Your task to perform on an android device: Search for seafood restaurants on Google Maps Image 0: 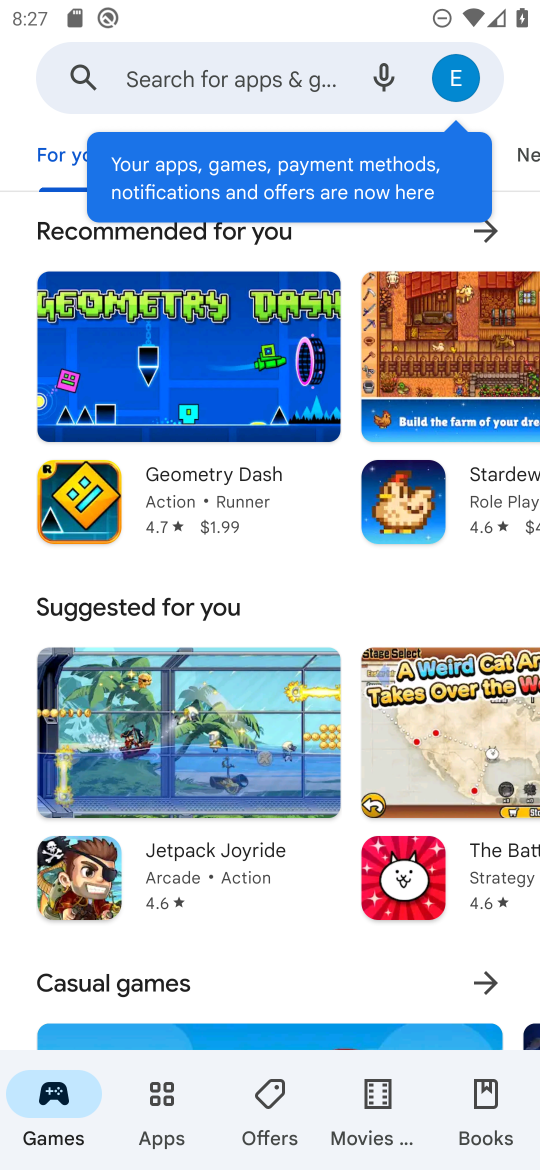
Step 0: press home button
Your task to perform on an android device: Search for seafood restaurants on Google Maps Image 1: 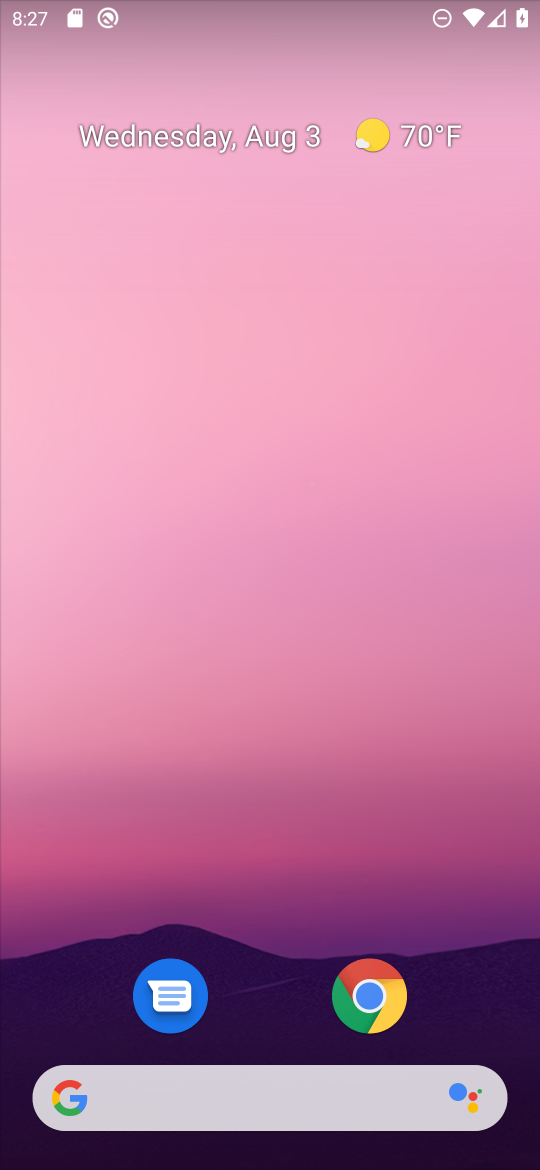
Step 1: drag from (276, 878) to (312, 0)
Your task to perform on an android device: Search for seafood restaurants on Google Maps Image 2: 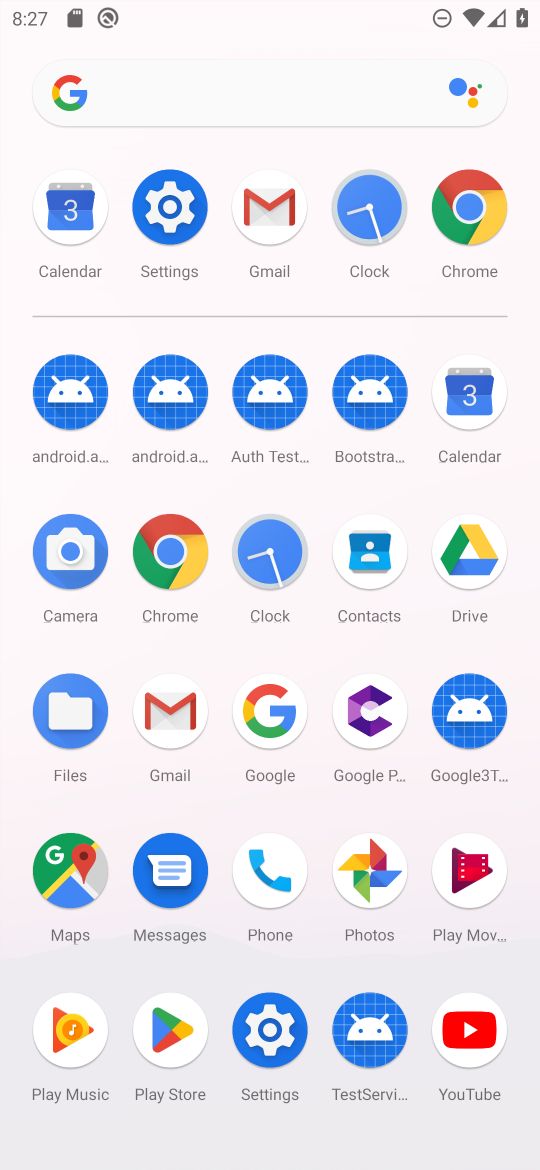
Step 2: click (75, 870)
Your task to perform on an android device: Search for seafood restaurants on Google Maps Image 3: 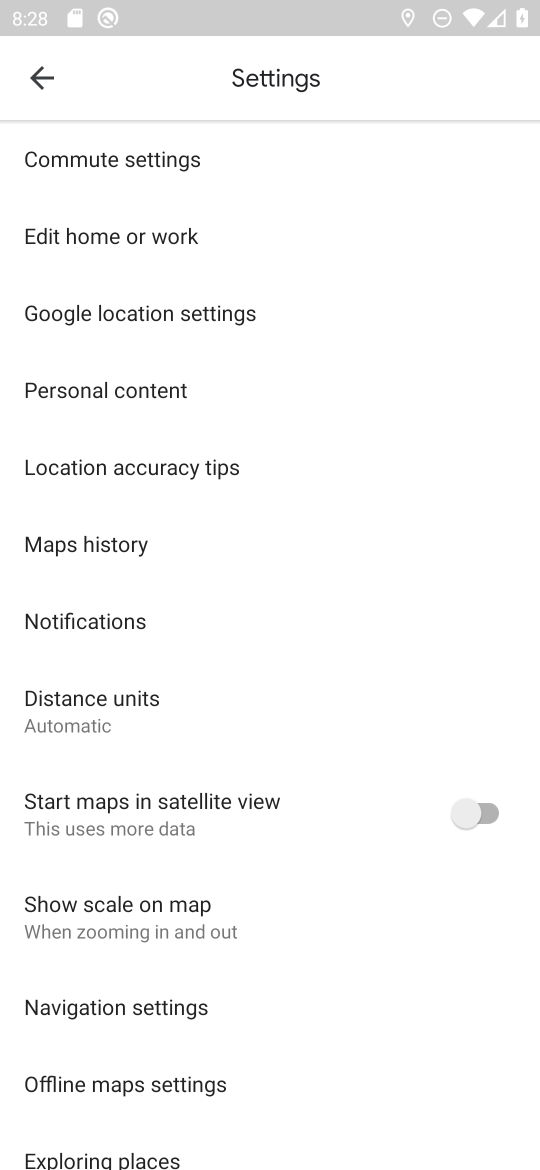
Step 3: click (44, 81)
Your task to perform on an android device: Search for seafood restaurants on Google Maps Image 4: 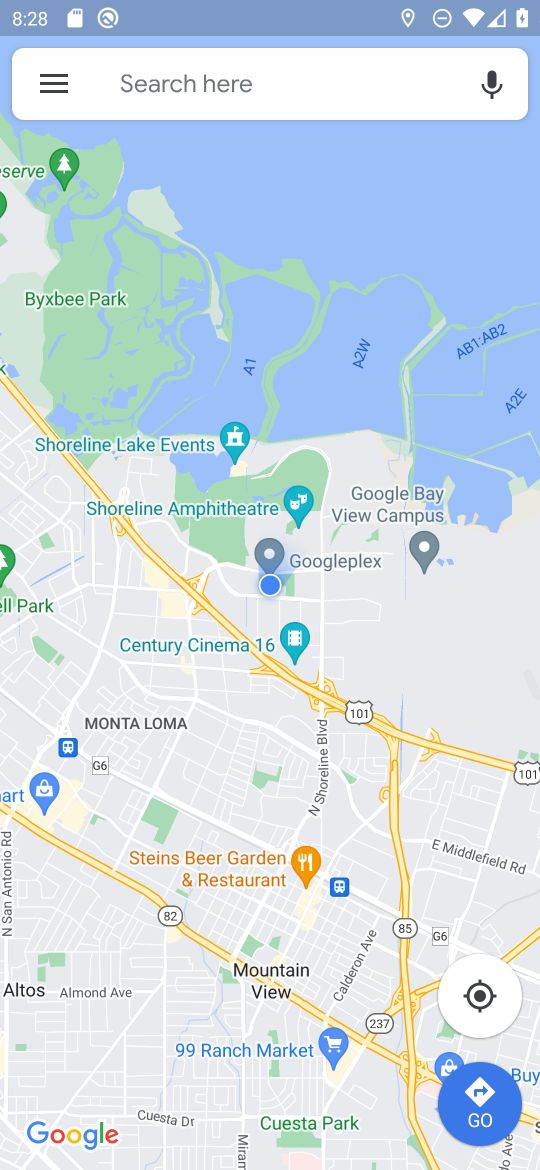
Step 4: click (302, 91)
Your task to perform on an android device: Search for seafood restaurants on Google Maps Image 5: 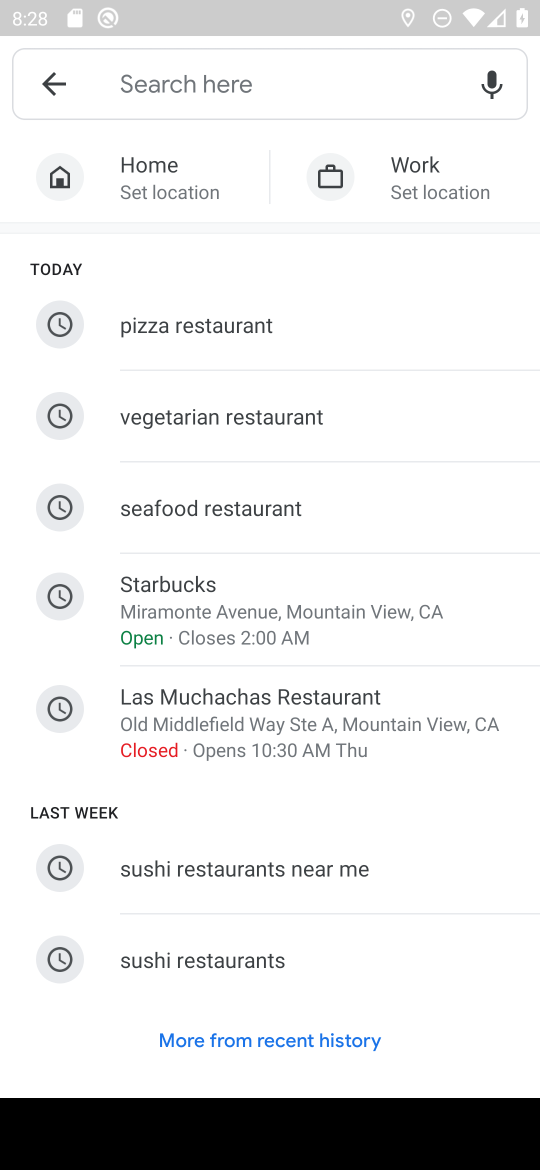
Step 5: click (263, 512)
Your task to perform on an android device: Search for seafood restaurants on Google Maps Image 6: 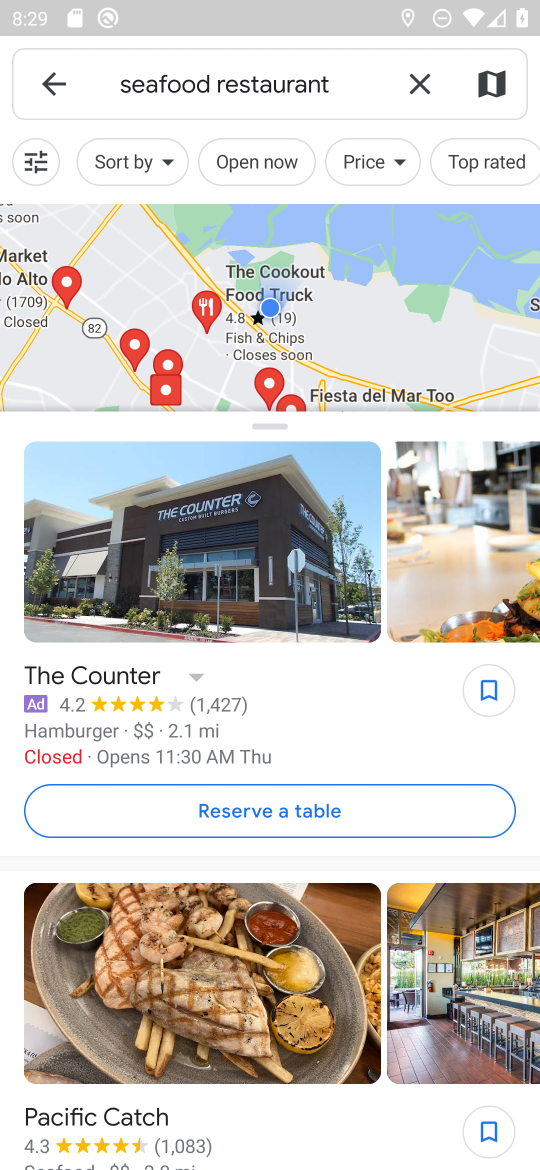
Step 6: task complete